Your task to perform on an android device: toggle notification dots Image 0: 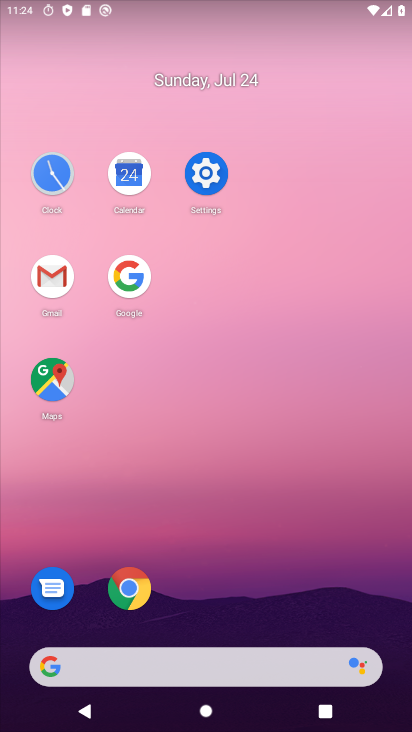
Step 0: click (205, 175)
Your task to perform on an android device: toggle notification dots Image 1: 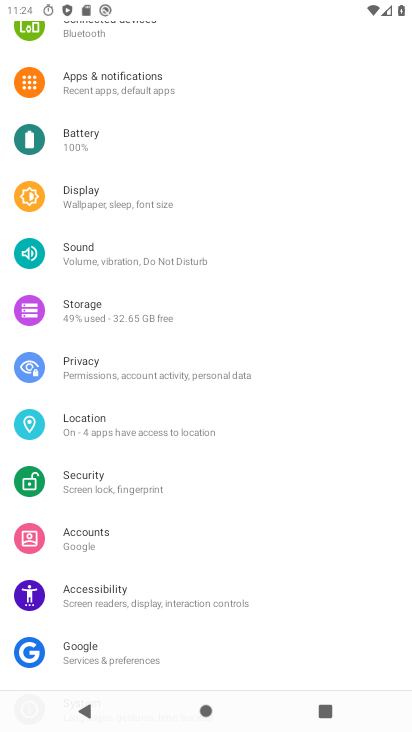
Step 1: click (175, 95)
Your task to perform on an android device: toggle notification dots Image 2: 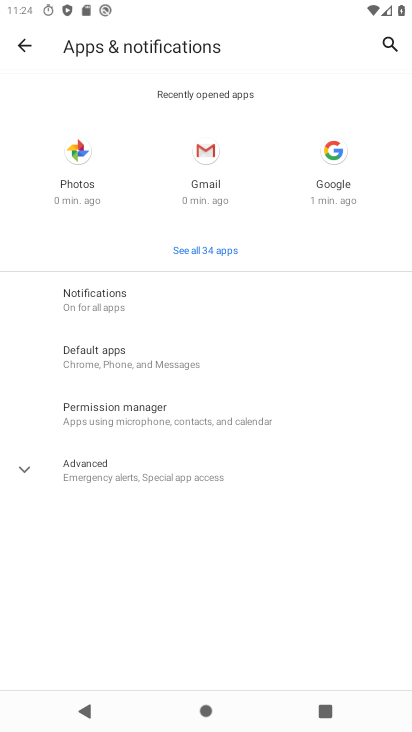
Step 2: click (115, 296)
Your task to perform on an android device: toggle notification dots Image 3: 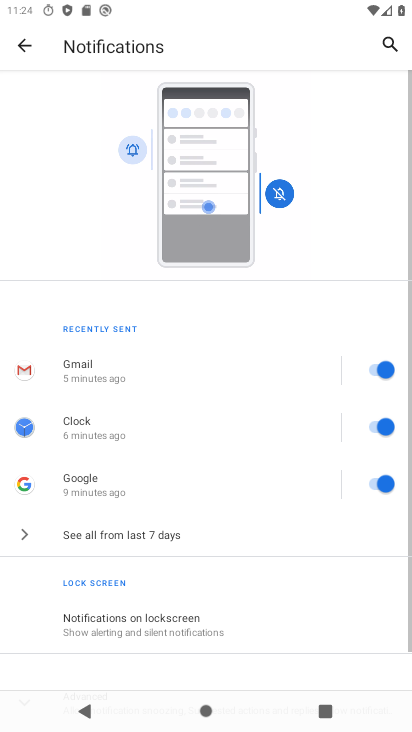
Step 3: drag from (175, 567) to (136, 188)
Your task to perform on an android device: toggle notification dots Image 4: 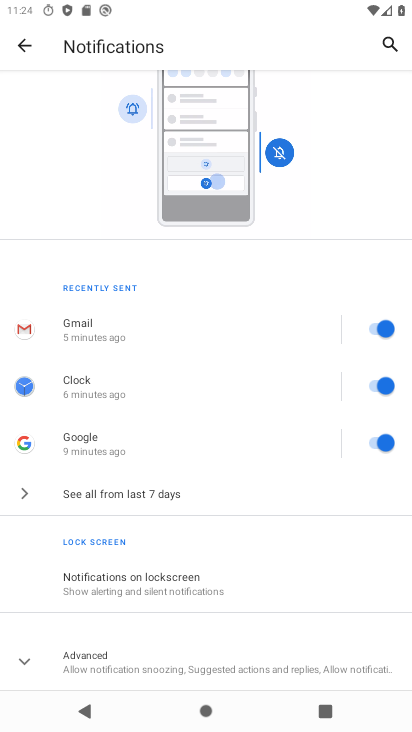
Step 4: click (129, 645)
Your task to perform on an android device: toggle notification dots Image 5: 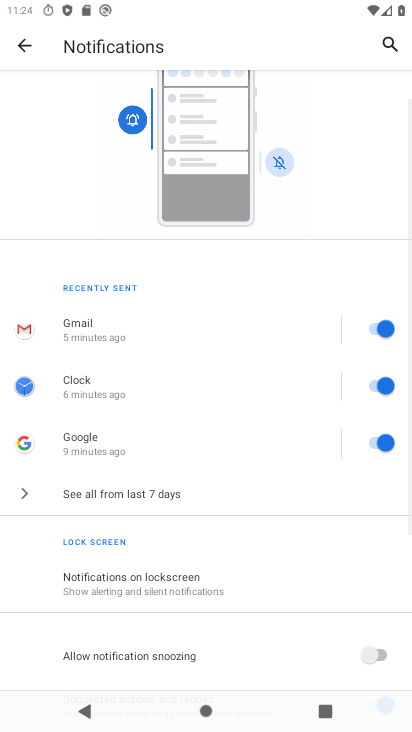
Step 5: drag from (323, 562) to (311, 133)
Your task to perform on an android device: toggle notification dots Image 6: 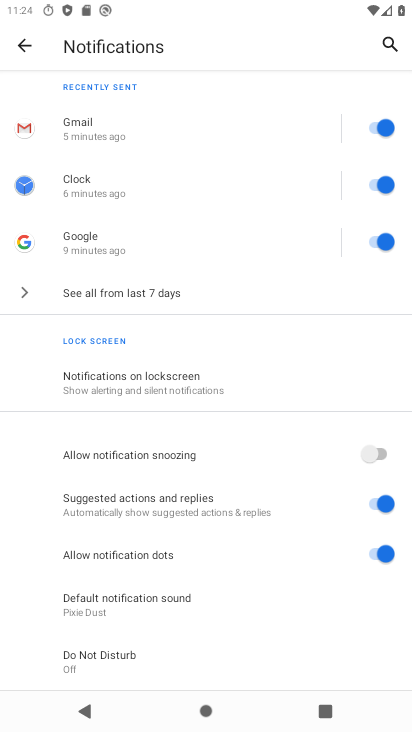
Step 6: click (366, 555)
Your task to perform on an android device: toggle notification dots Image 7: 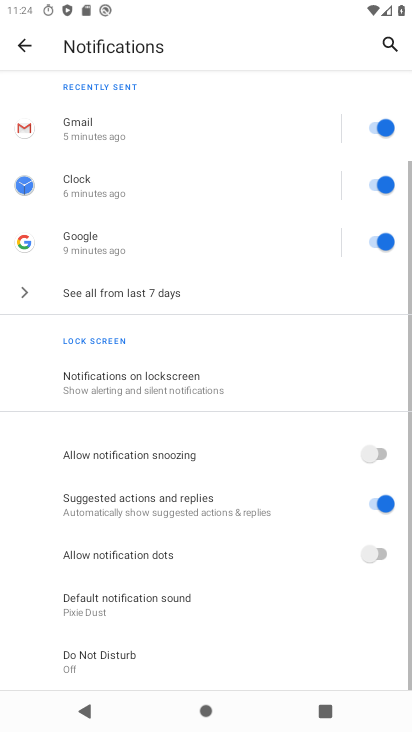
Step 7: task complete